Your task to perform on an android device: turn on the 12-hour format for clock Image 0: 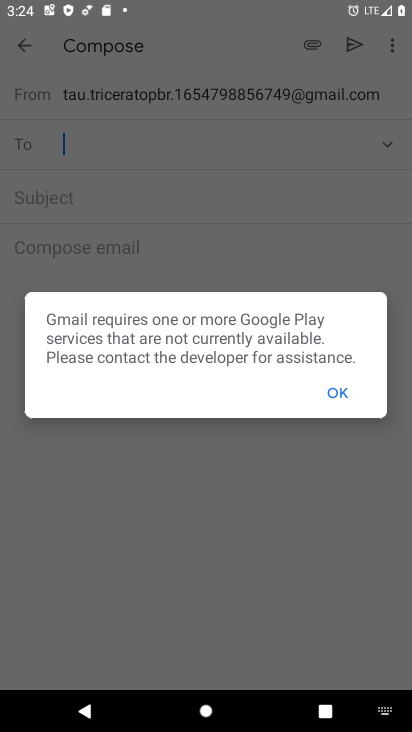
Step 0: click (332, 385)
Your task to perform on an android device: turn on the 12-hour format for clock Image 1: 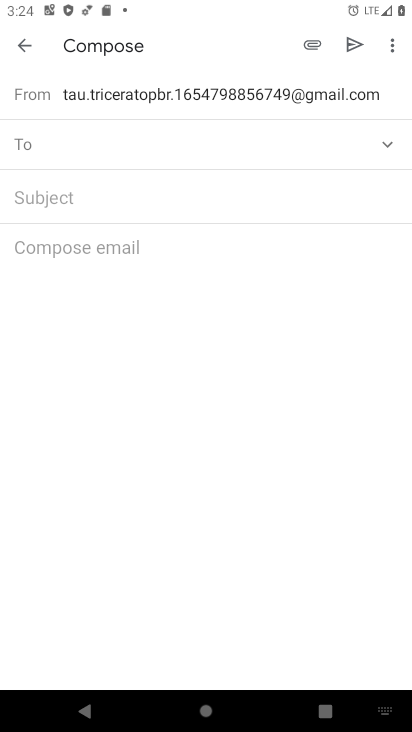
Step 1: press back button
Your task to perform on an android device: turn on the 12-hour format for clock Image 2: 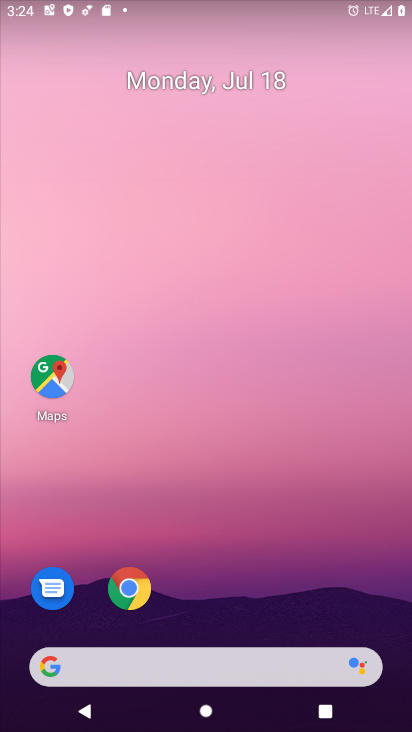
Step 2: drag from (225, 590) to (324, 59)
Your task to perform on an android device: turn on the 12-hour format for clock Image 3: 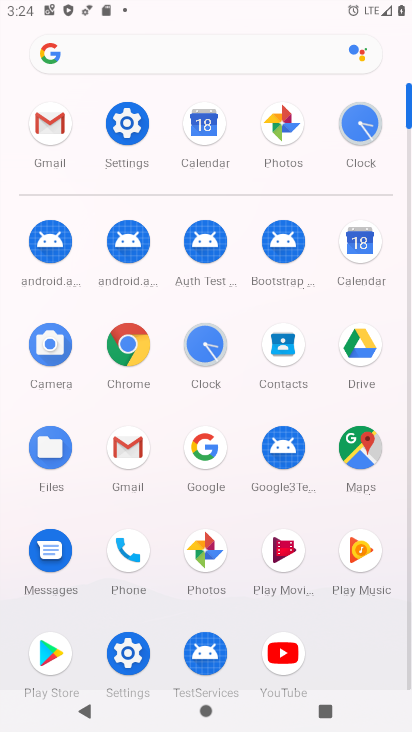
Step 3: click (362, 122)
Your task to perform on an android device: turn on the 12-hour format for clock Image 4: 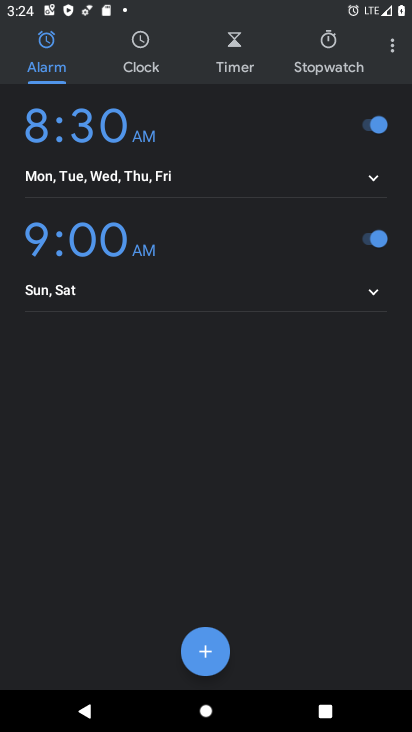
Step 4: click (388, 41)
Your task to perform on an android device: turn on the 12-hour format for clock Image 5: 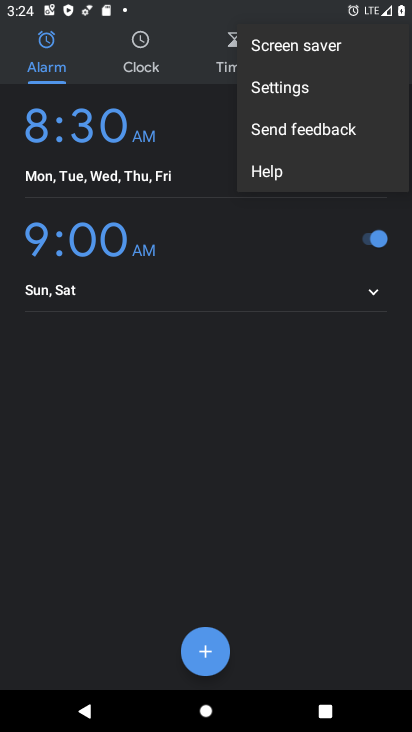
Step 5: click (324, 80)
Your task to perform on an android device: turn on the 12-hour format for clock Image 6: 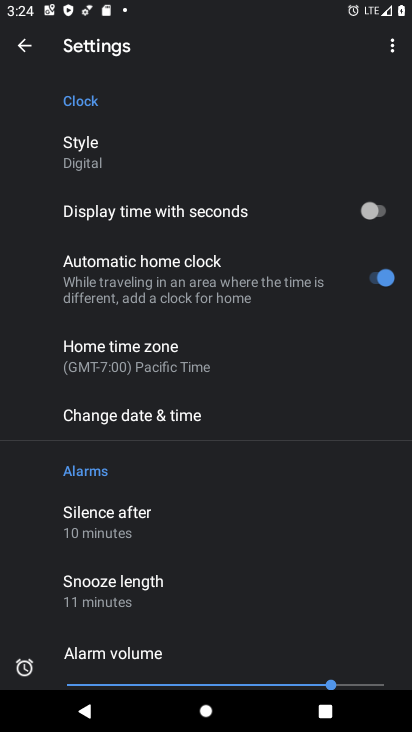
Step 6: click (136, 421)
Your task to perform on an android device: turn on the 12-hour format for clock Image 7: 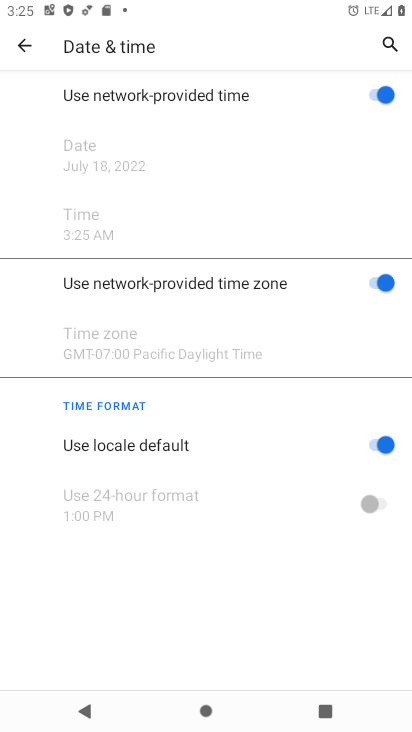
Step 7: task complete